Your task to perform on an android device: Open notification settings Image 0: 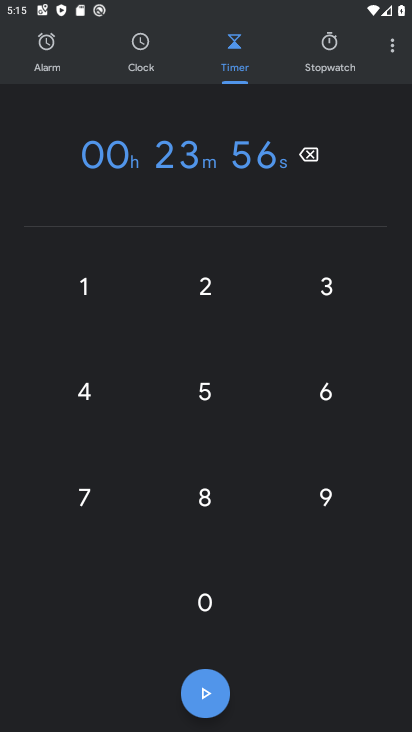
Step 0: press home button
Your task to perform on an android device: Open notification settings Image 1: 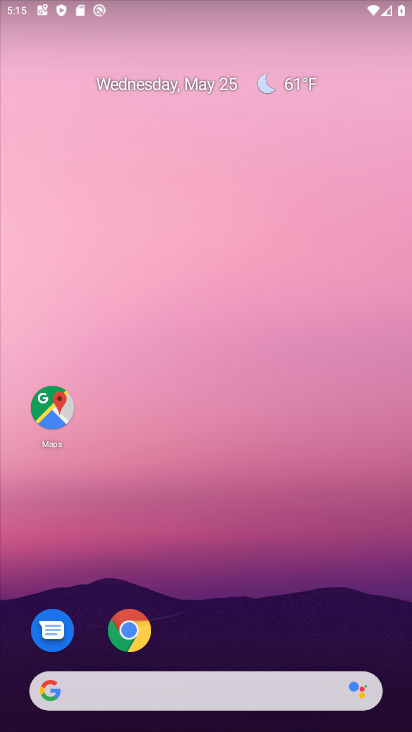
Step 1: drag from (254, 599) to (298, 74)
Your task to perform on an android device: Open notification settings Image 2: 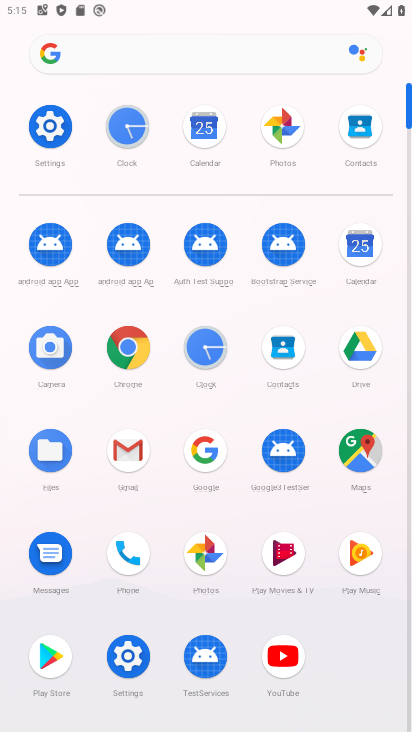
Step 2: click (37, 128)
Your task to perform on an android device: Open notification settings Image 3: 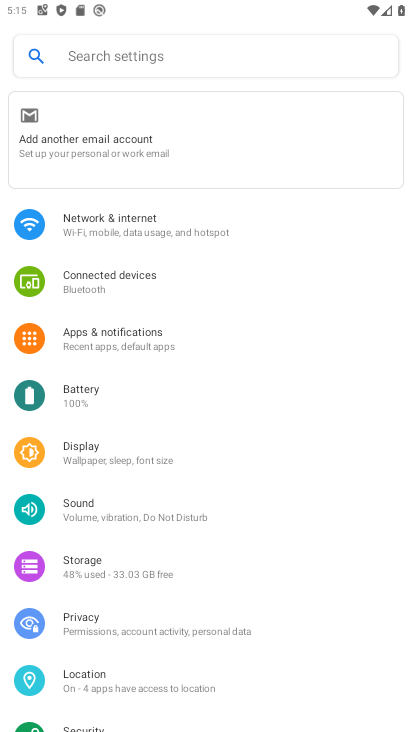
Step 3: click (144, 340)
Your task to perform on an android device: Open notification settings Image 4: 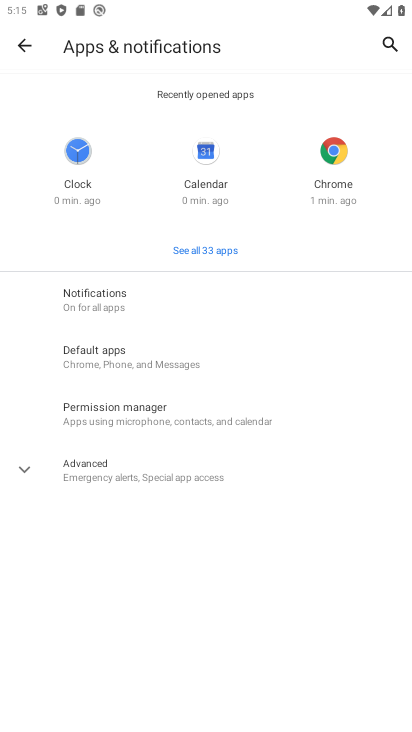
Step 4: task complete